Your task to perform on an android device: turn on the 12-hour format for clock Image 0: 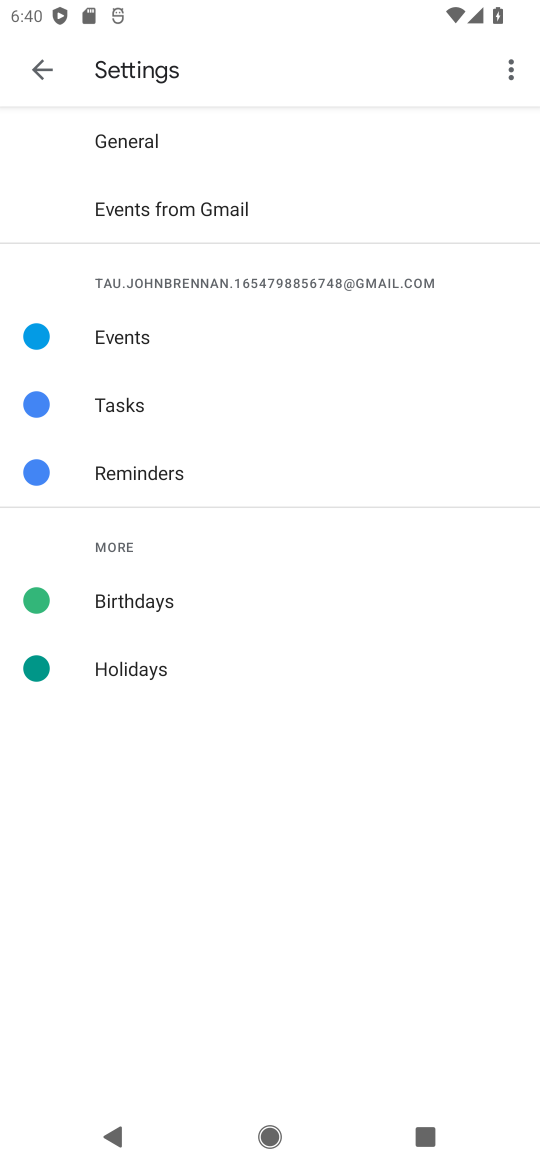
Step 0: press home button
Your task to perform on an android device: turn on the 12-hour format for clock Image 1: 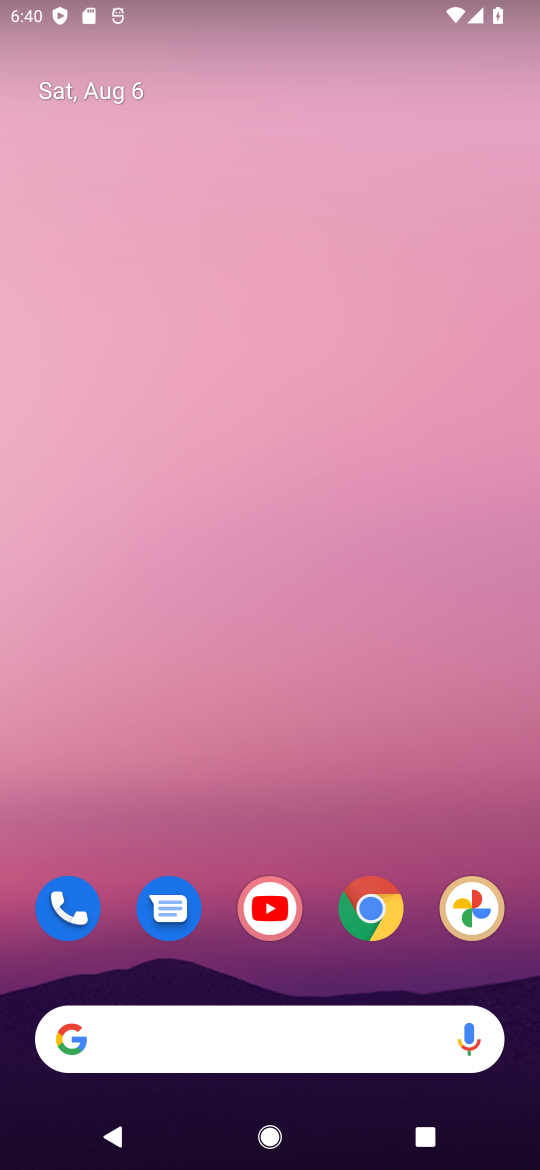
Step 1: drag from (447, 752) to (378, 241)
Your task to perform on an android device: turn on the 12-hour format for clock Image 2: 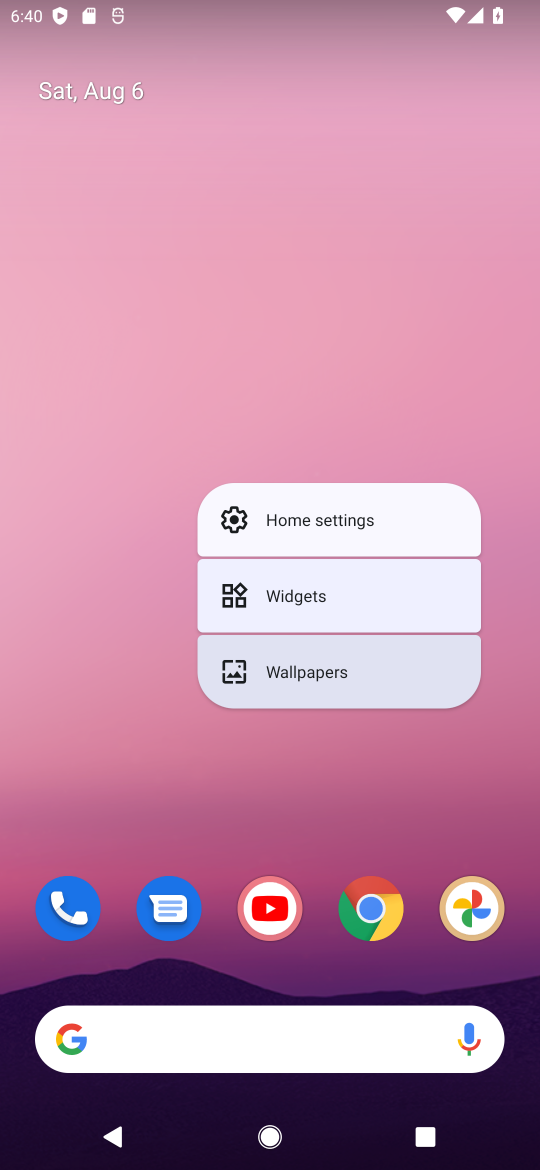
Step 2: click (520, 759)
Your task to perform on an android device: turn on the 12-hour format for clock Image 3: 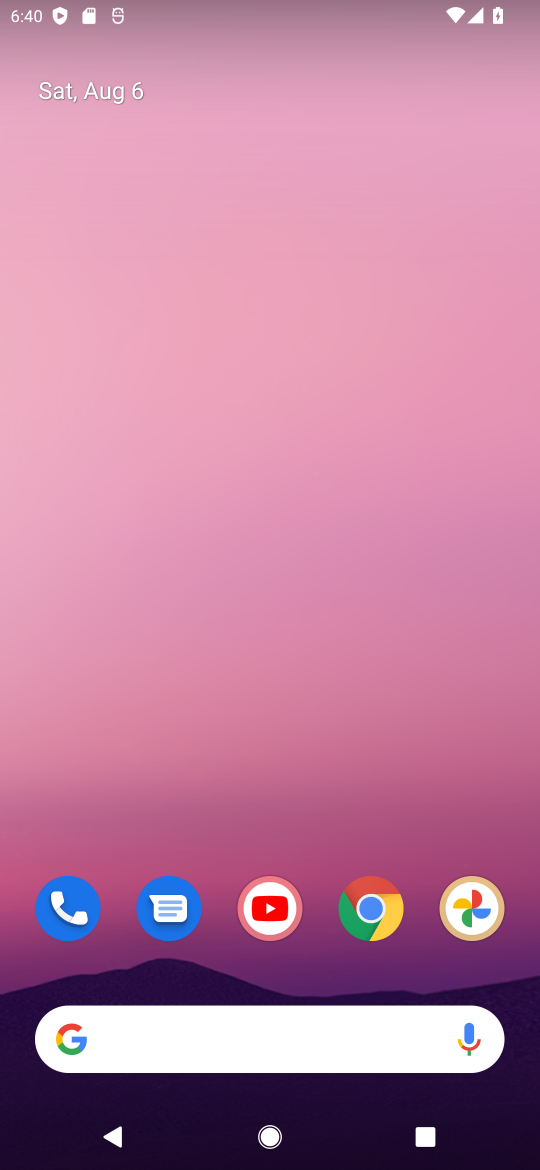
Step 3: drag from (460, 778) to (389, 6)
Your task to perform on an android device: turn on the 12-hour format for clock Image 4: 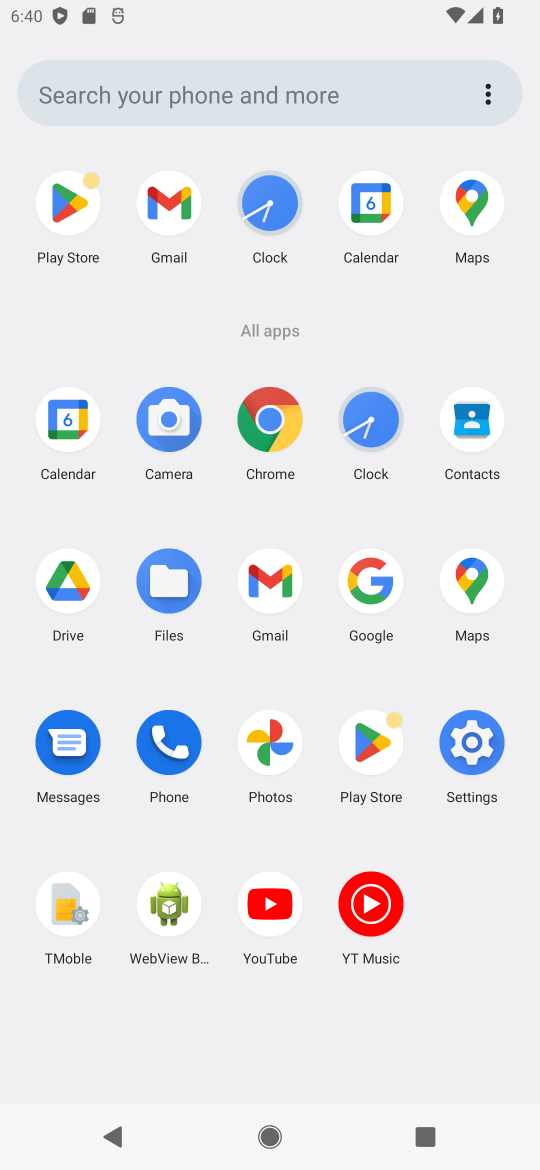
Step 4: click (290, 186)
Your task to perform on an android device: turn on the 12-hour format for clock Image 5: 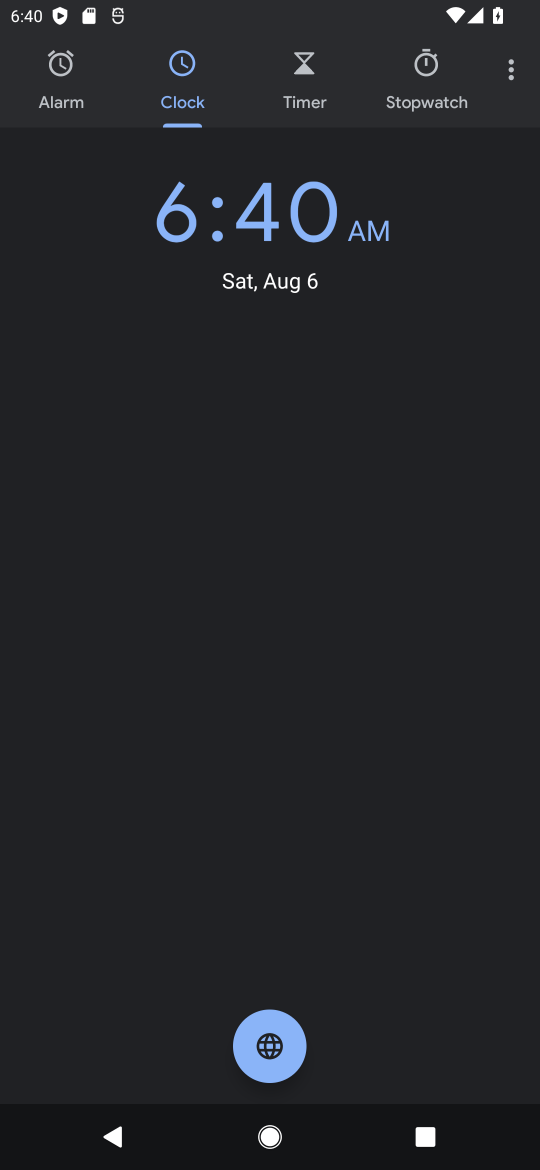
Step 5: click (504, 66)
Your task to perform on an android device: turn on the 12-hour format for clock Image 6: 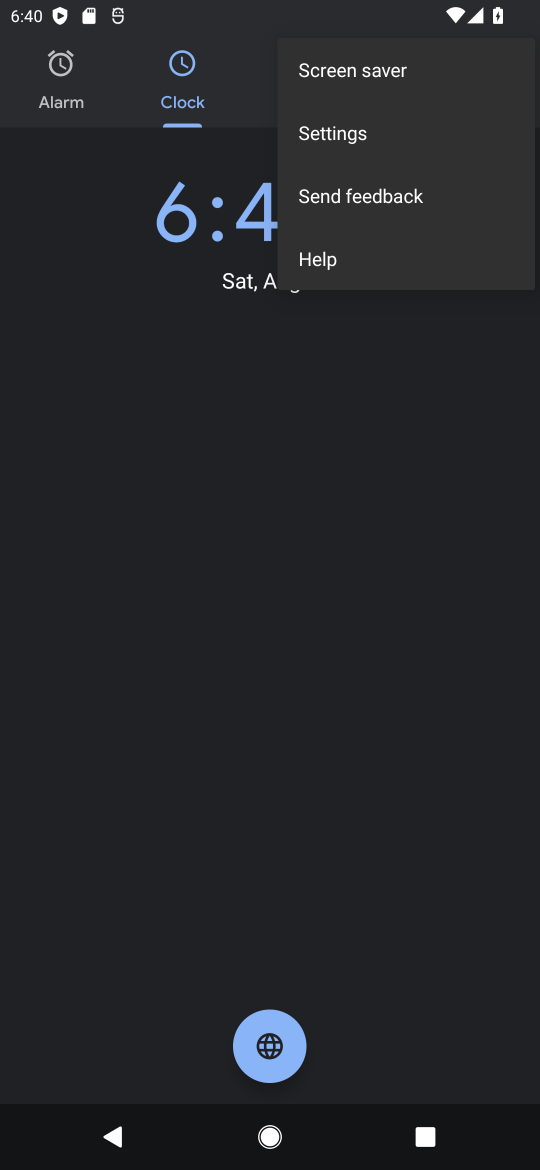
Step 6: click (348, 138)
Your task to perform on an android device: turn on the 12-hour format for clock Image 7: 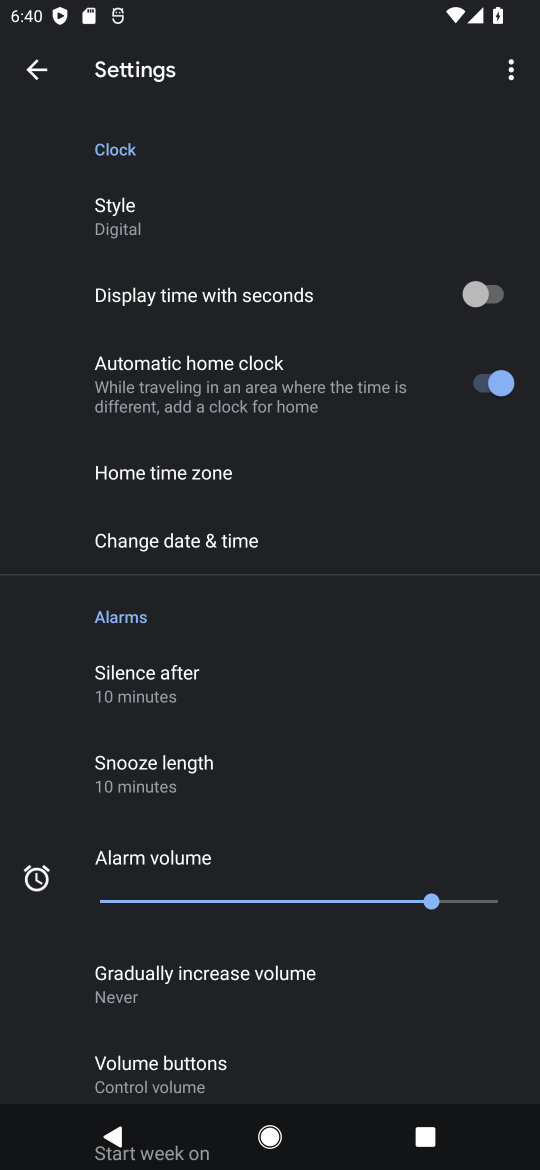
Step 7: drag from (357, 779) to (327, 106)
Your task to perform on an android device: turn on the 12-hour format for clock Image 8: 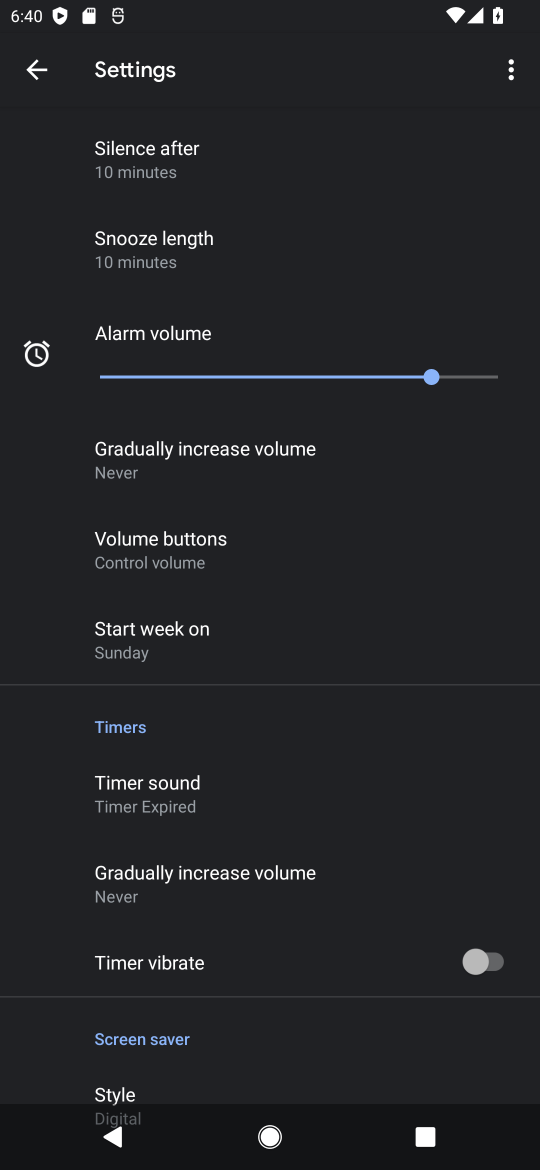
Step 8: drag from (245, 101) to (299, 465)
Your task to perform on an android device: turn on the 12-hour format for clock Image 9: 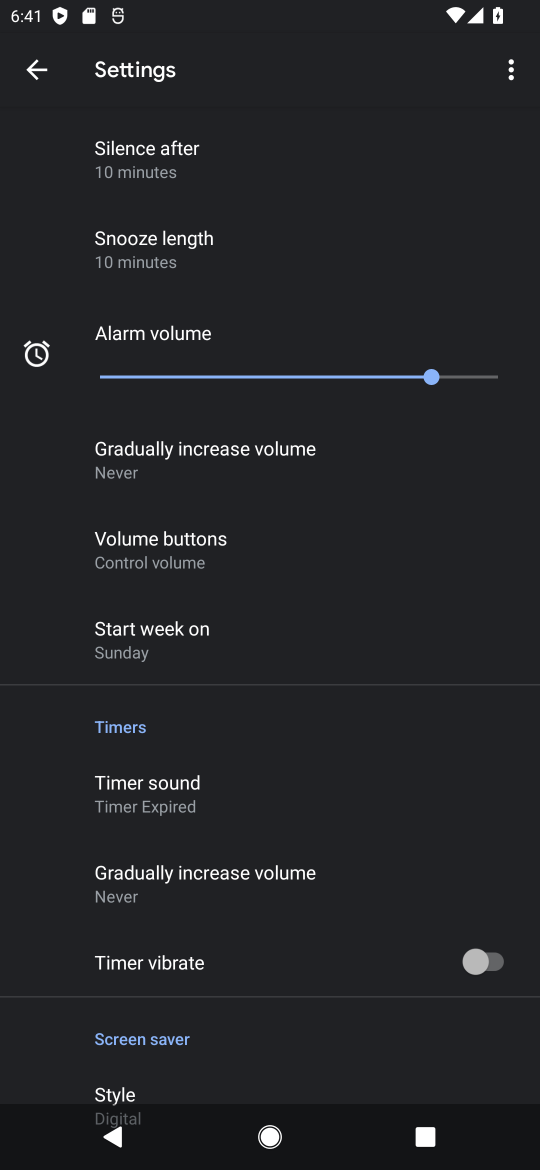
Step 9: drag from (277, 176) to (358, 702)
Your task to perform on an android device: turn on the 12-hour format for clock Image 10: 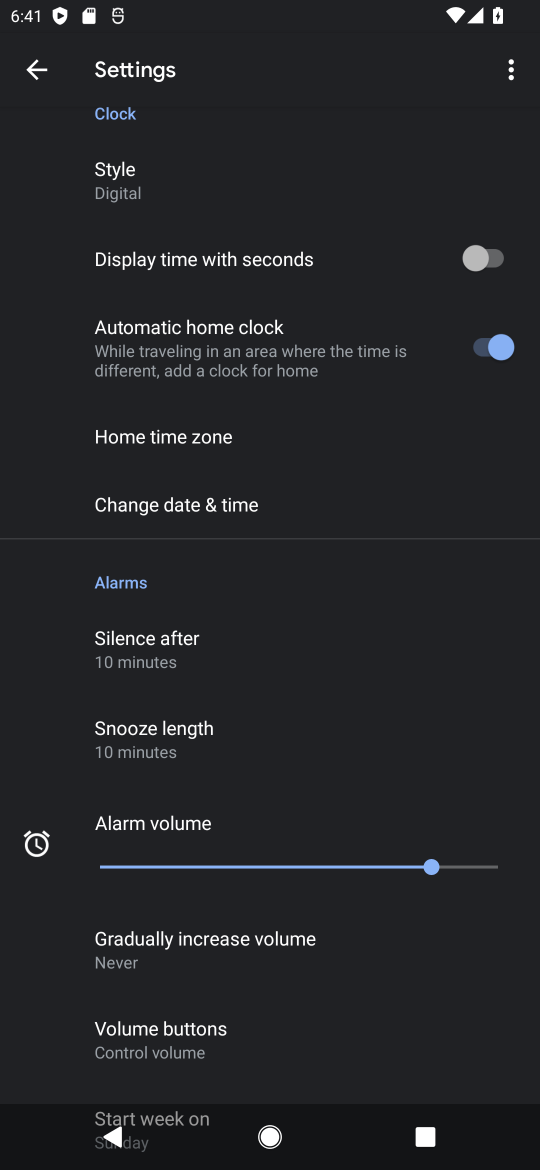
Step 10: click (262, 492)
Your task to perform on an android device: turn on the 12-hour format for clock Image 11: 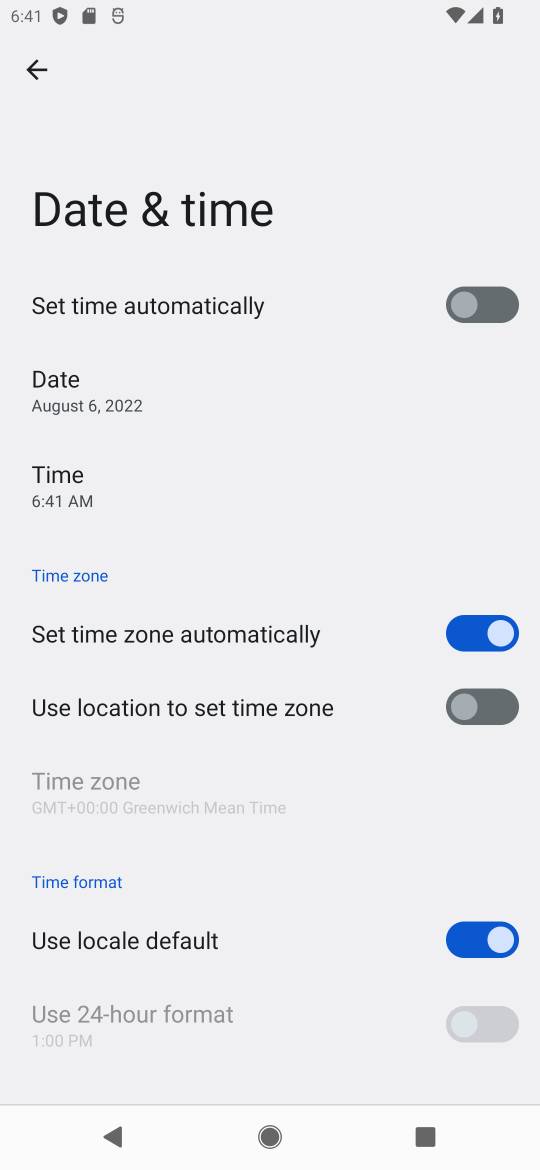
Step 11: task complete